Your task to perform on an android device: open the mobile data screen to see how much data has been used Image 0: 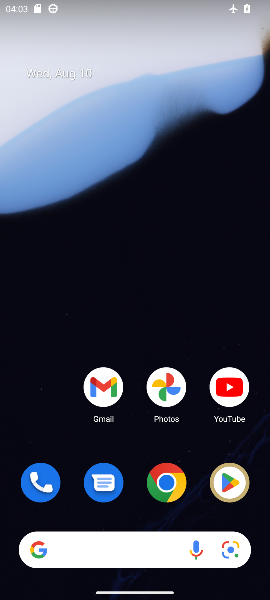
Step 0: drag from (186, 504) to (156, 11)
Your task to perform on an android device: open the mobile data screen to see how much data has been used Image 1: 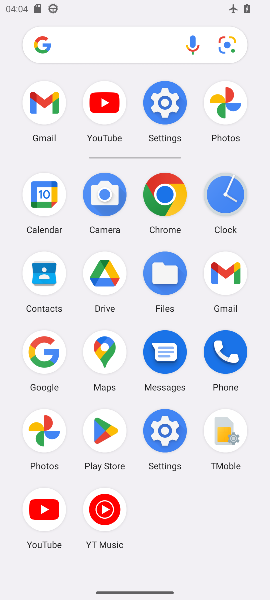
Step 1: drag from (113, 0) to (159, 585)
Your task to perform on an android device: open the mobile data screen to see how much data has been used Image 2: 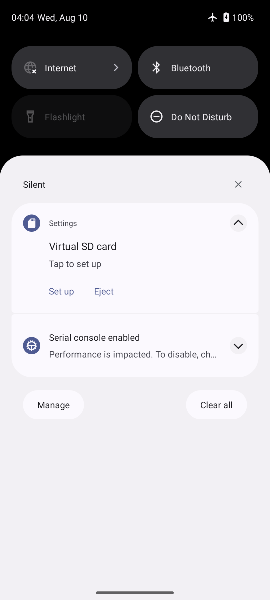
Step 2: click (78, 67)
Your task to perform on an android device: open the mobile data screen to see how much data has been used Image 3: 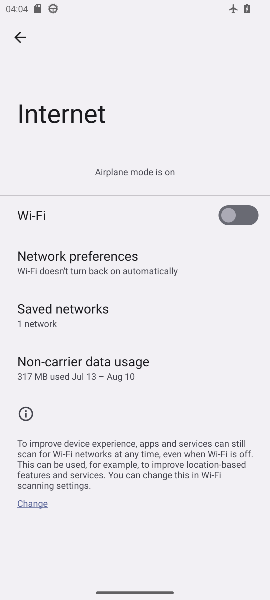
Step 3: task complete